Your task to perform on an android device: Open Chrome and go to settings Image 0: 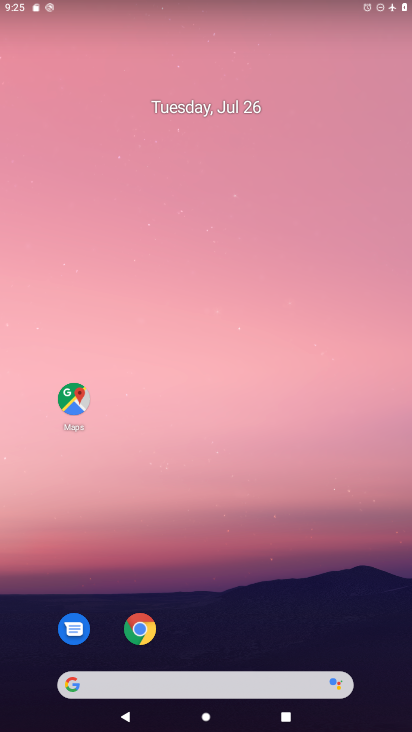
Step 0: drag from (242, 654) to (246, 128)
Your task to perform on an android device: Open Chrome and go to settings Image 1: 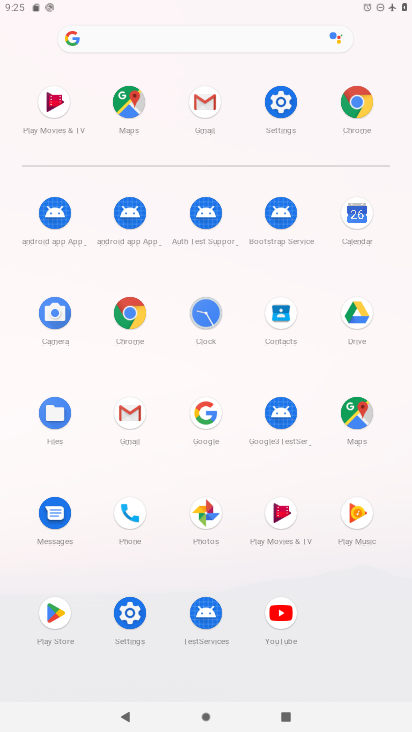
Step 1: click (133, 322)
Your task to perform on an android device: Open Chrome and go to settings Image 2: 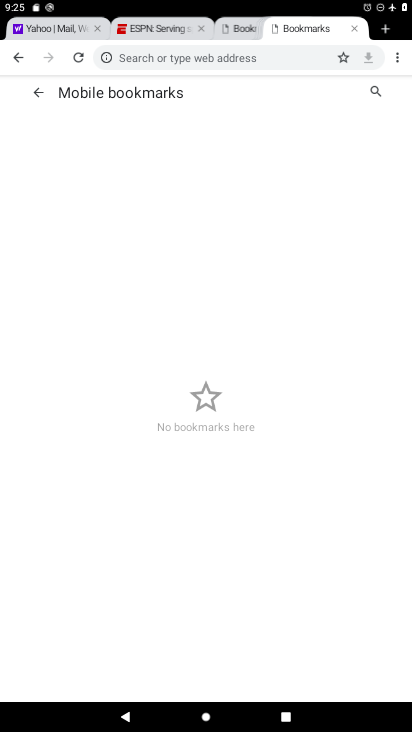
Step 2: task complete